Your task to perform on an android device: uninstall "Gmail" Image 0: 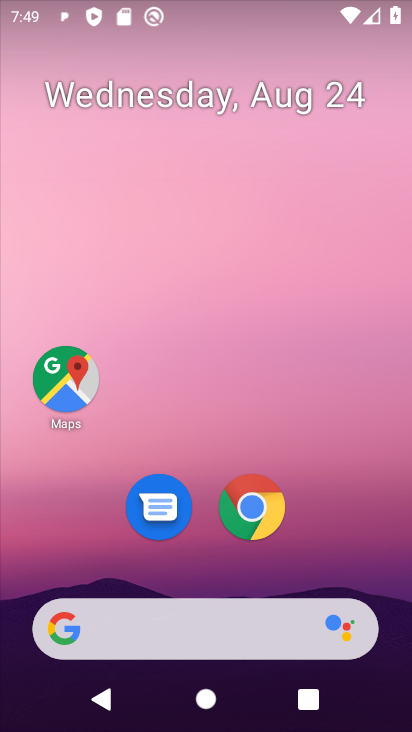
Step 0: press home button
Your task to perform on an android device: uninstall "Gmail" Image 1: 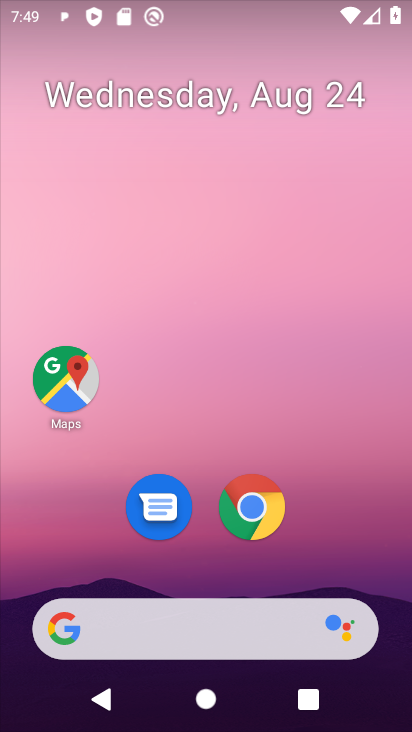
Step 1: drag from (374, 569) to (377, 119)
Your task to perform on an android device: uninstall "Gmail" Image 2: 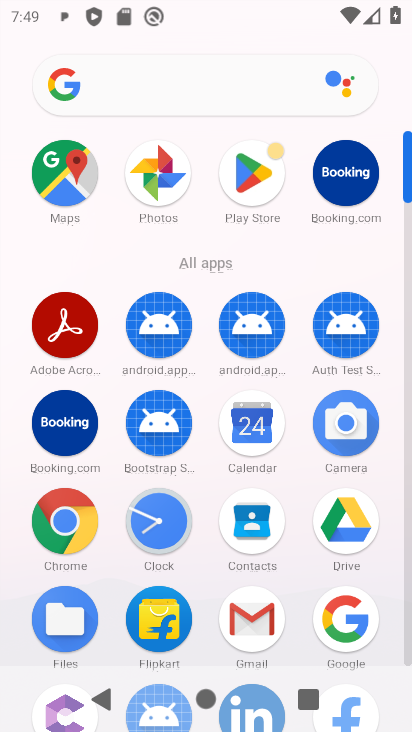
Step 2: click (255, 171)
Your task to perform on an android device: uninstall "Gmail" Image 3: 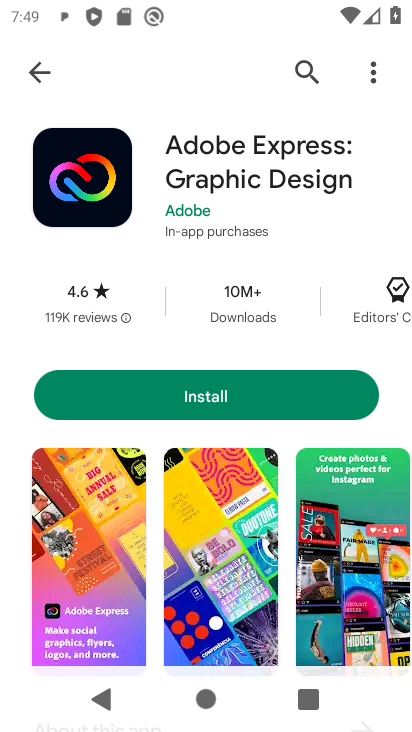
Step 3: press back button
Your task to perform on an android device: uninstall "Gmail" Image 4: 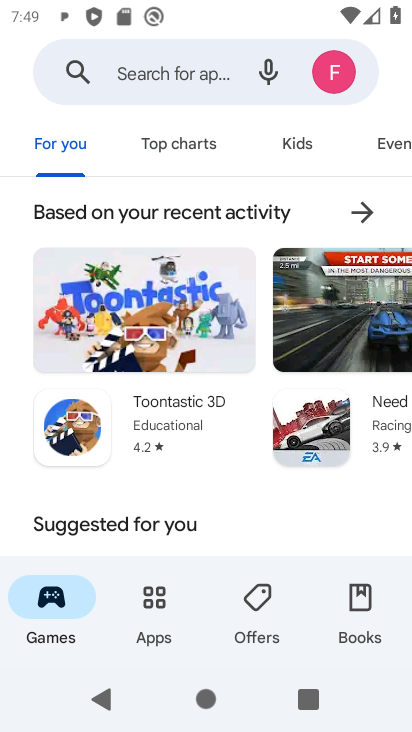
Step 4: click (163, 72)
Your task to perform on an android device: uninstall "Gmail" Image 5: 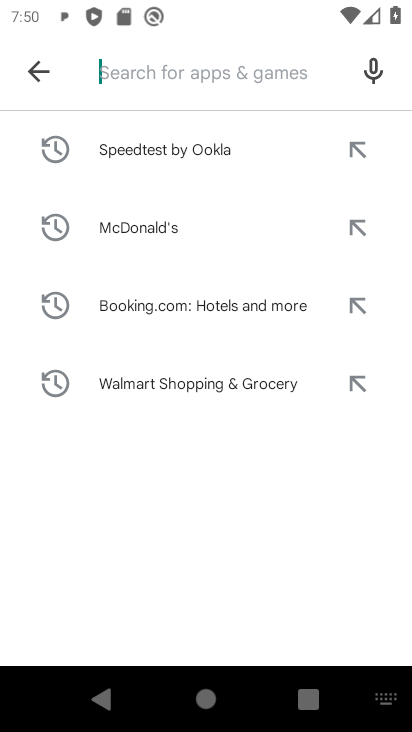
Step 5: press enter
Your task to perform on an android device: uninstall "Gmail" Image 6: 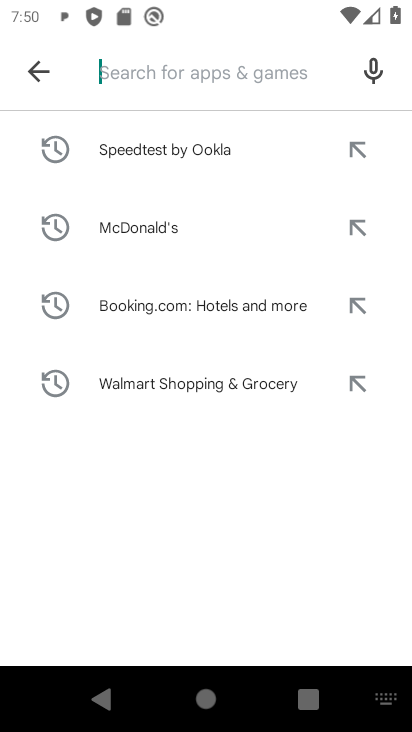
Step 6: type "gmail"
Your task to perform on an android device: uninstall "Gmail" Image 7: 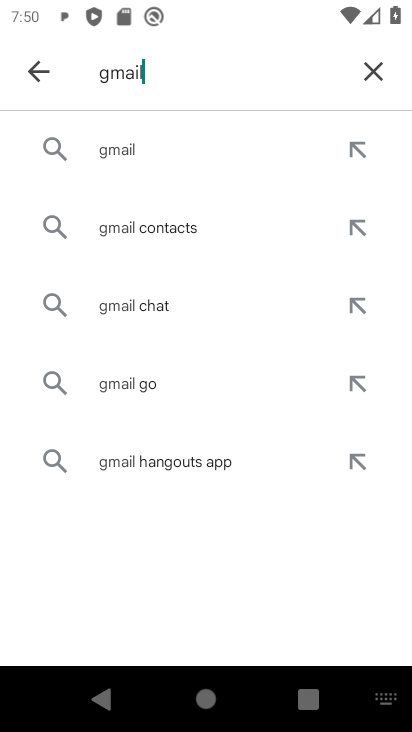
Step 7: click (153, 152)
Your task to perform on an android device: uninstall "Gmail" Image 8: 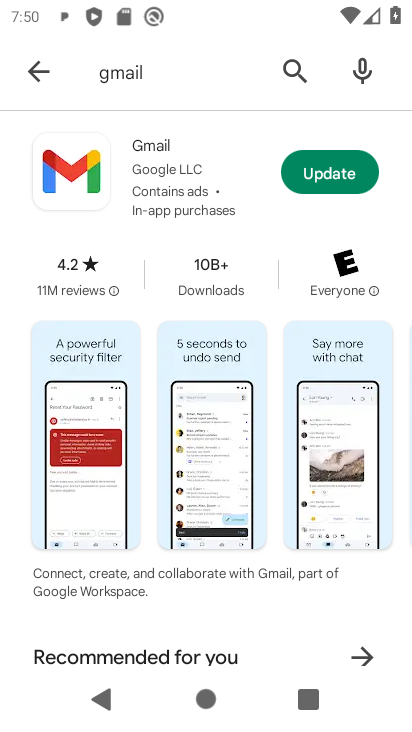
Step 8: task complete